Your task to perform on an android device: toggle wifi Image 0: 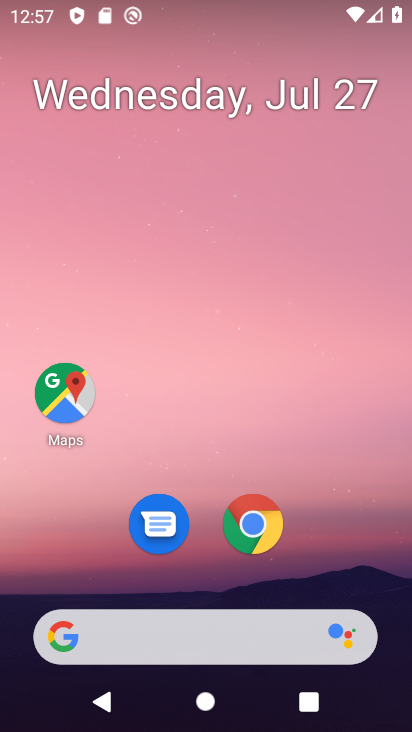
Step 0: drag from (342, 506) to (366, 0)
Your task to perform on an android device: toggle wifi Image 1: 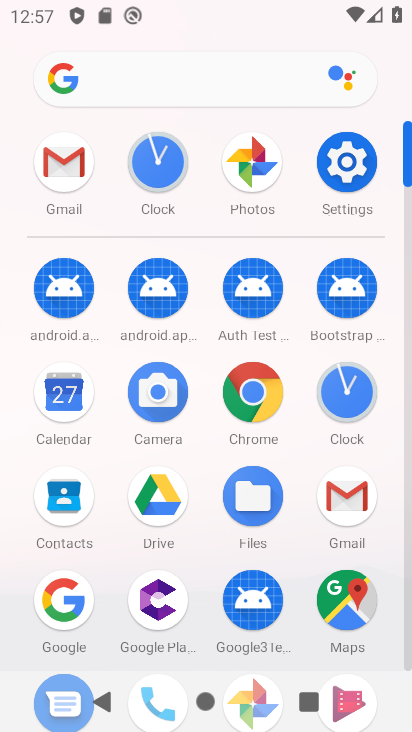
Step 1: click (348, 165)
Your task to perform on an android device: toggle wifi Image 2: 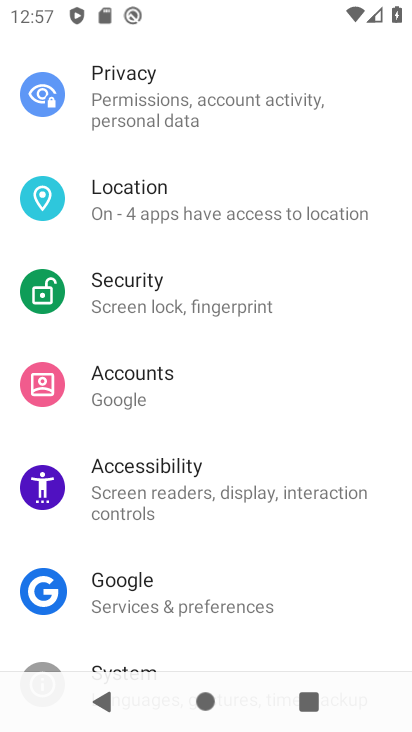
Step 2: drag from (232, 165) to (289, 580)
Your task to perform on an android device: toggle wifi Image 3: 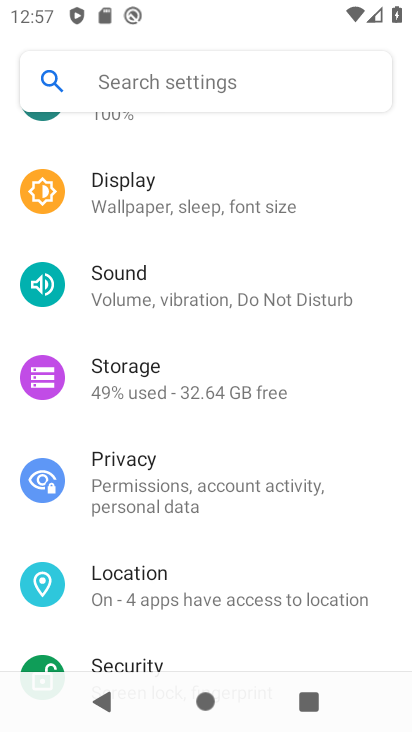
Step 3: drag from (227, 232) to (247, 559)
Your task to perform on an android device: toggle wifi Image 4: 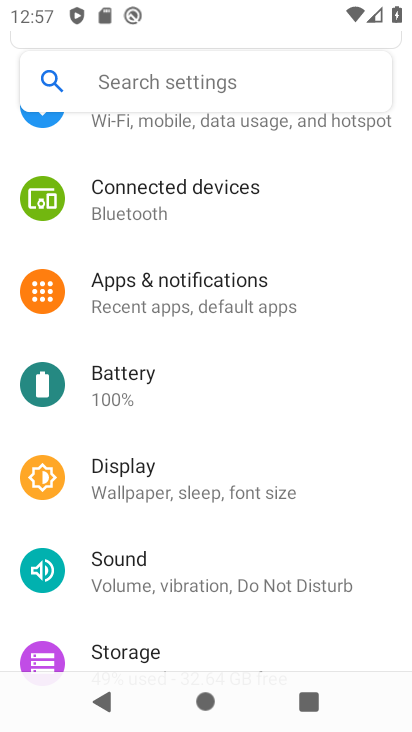
Step 4: drag from (205, 201) to (205, 552)
Your task to perform on an android device: toggle wifi Image 5: 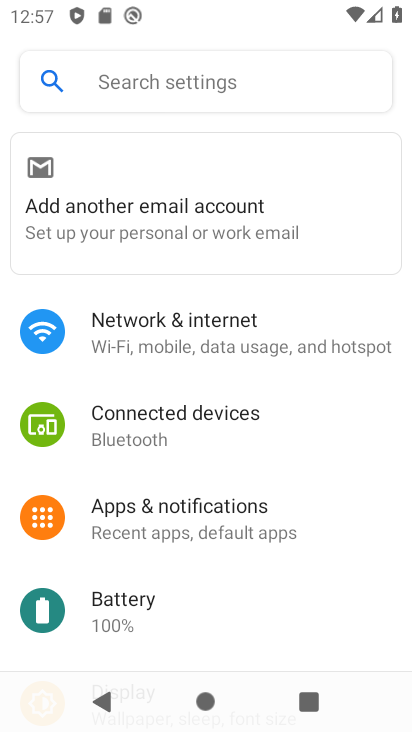
Step 5: click (197, 326)
Your task to perform on an android device: toggle wifi Image 6: 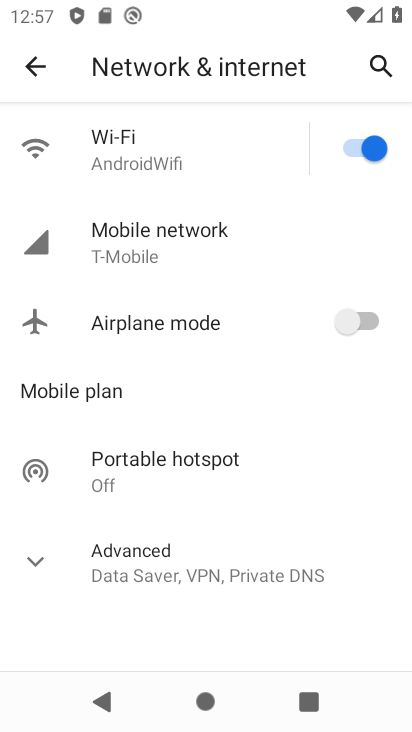
Step 6: click (359, 142)
Your task to perform on an android device: toggle wifi Image 7: 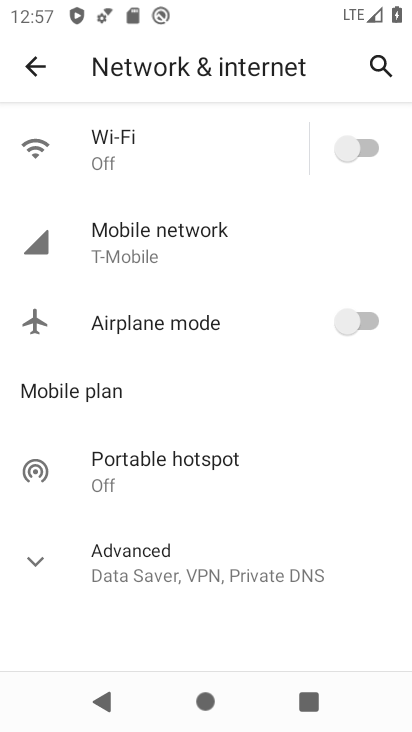
Step 7: task complete